Your task to perform on an android device: change notifications settings Image 0: 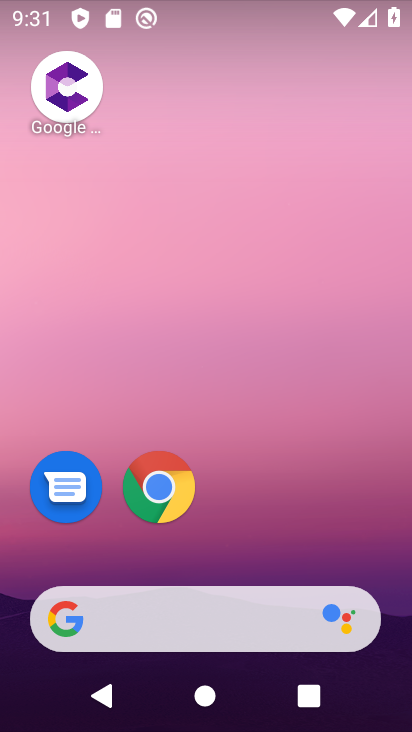
Step 0: drag from (259, 433) to (301, 16)
Your task to perform on an android device: change notifications settings Image 1: 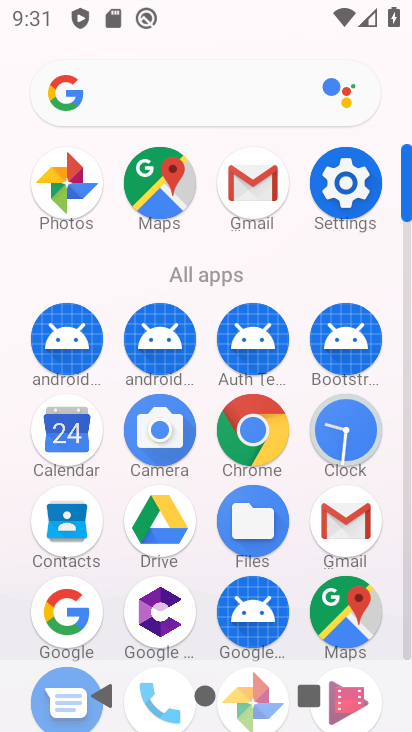
Step 1: click (336, 175)
Your task to perform on an android device: change notifications settings Image 2: 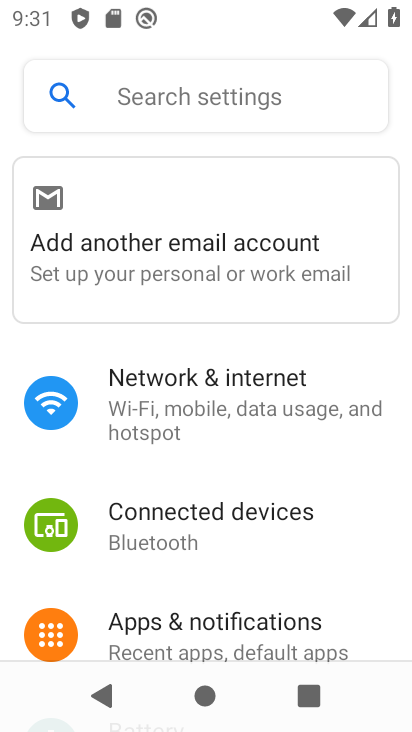
Step 2: click (245, 630)
Your task to perform on an android device: change notifications settings Image 3: 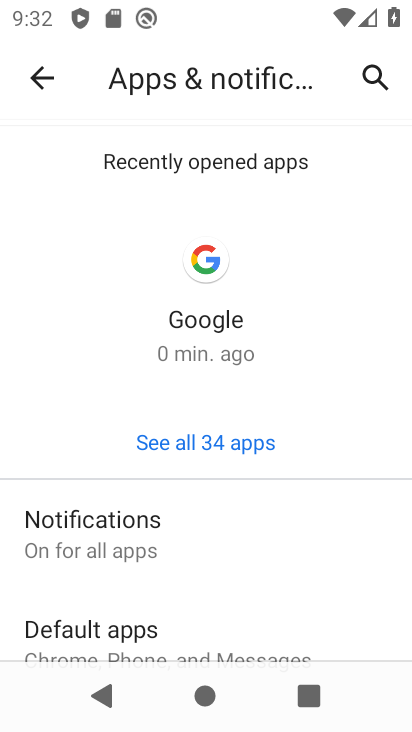
Step 3: click (129, 529)
Your task to perform on an android device: change notifications settings Image 4: 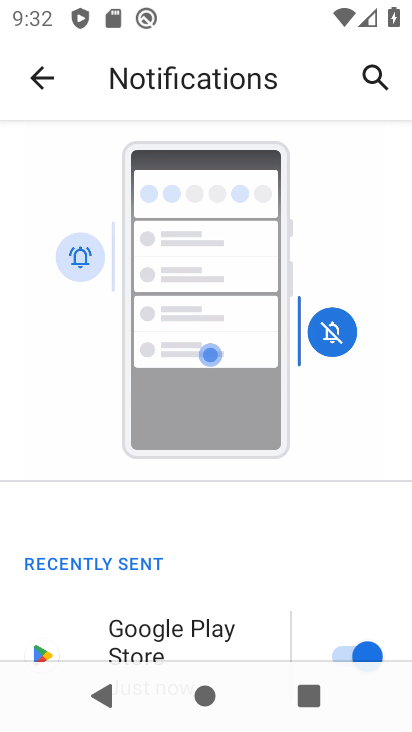
Step 4: drag from (191, 678) to (264, 216)
Your task to perform on an android device: change notifications settings Image 5: 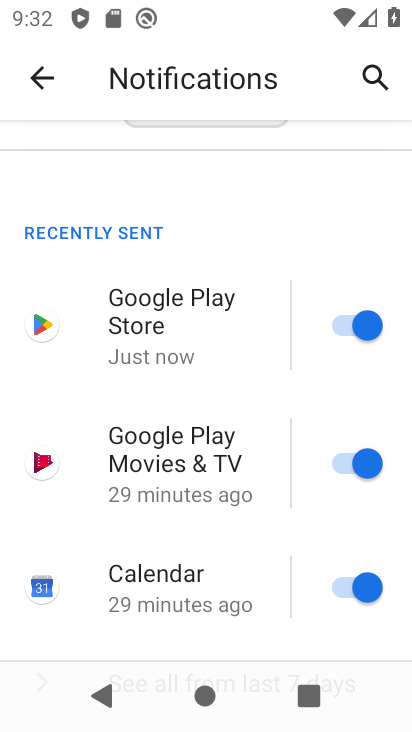
Step 5: drag from (189, 659) to (246, 194)
Your task to perform on an android device: change notifications settings Image 6: 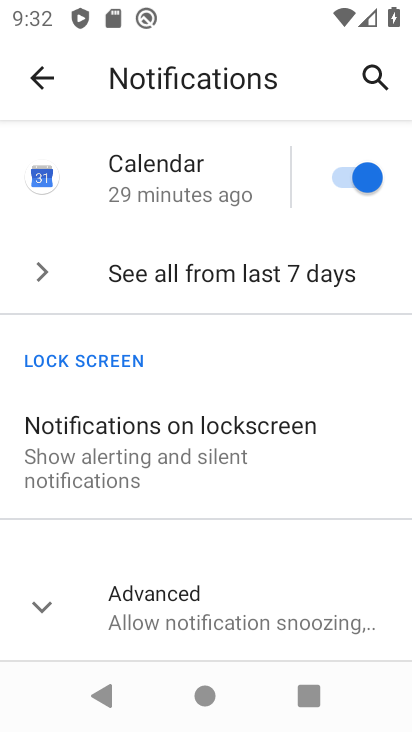
Step 6: click (175, 620)
Your task to perform on an android device: change notifications settings Image 7: 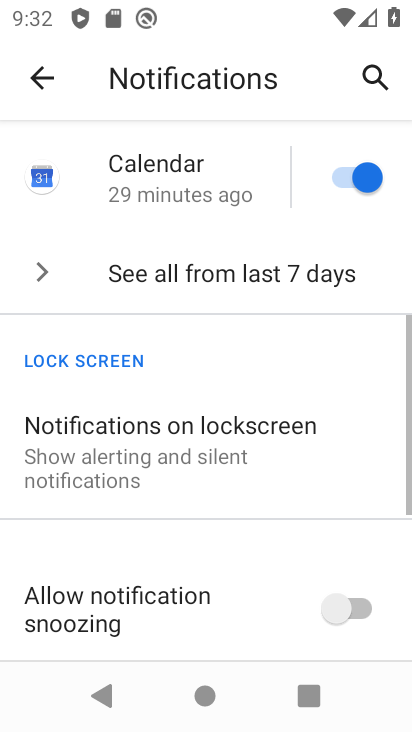
Step 7: drag from (203, 619) to (249, 385)
Your task to perform on an android device: change notifications settings Image 8: 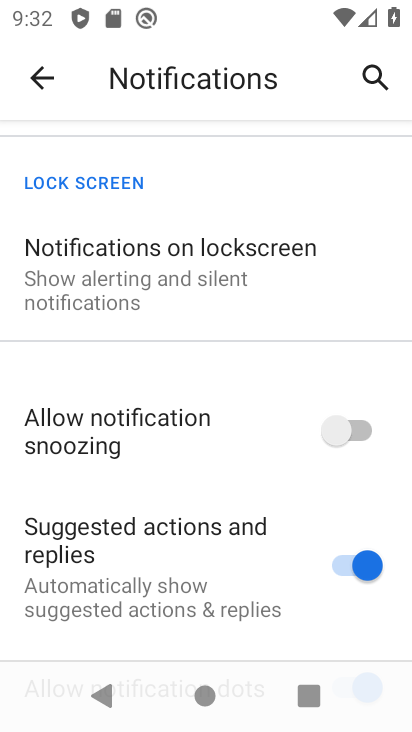
Step 8: click (357, 432)
Your task to perform on an android device: change notifications settings Image 9: 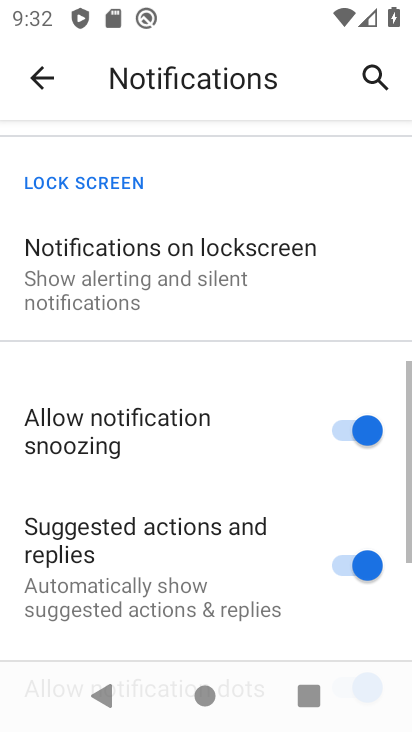
Step 9: task complete